Your task to perform on an android device: turn on priority inbox in the gmail app Image 0: 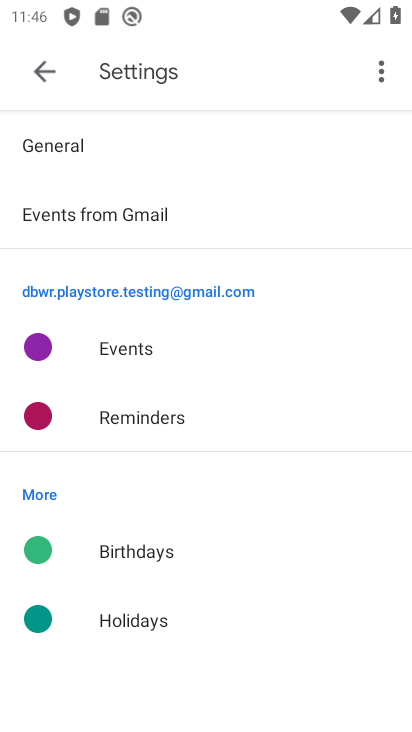
Step 0: press home button
Your task to perform on an android device: turn on priority inbox in the gmail app Image 1: 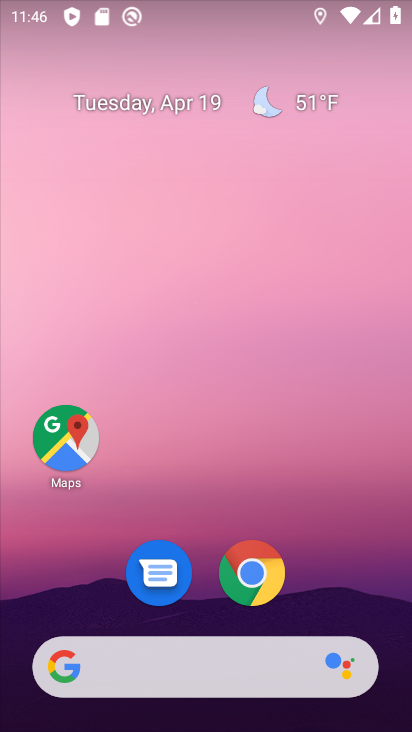
Step 1: drag from (311, 607) to (311, 201)
Your task to perform on an android device: turn on priority inbox in the gmail app Image 2: 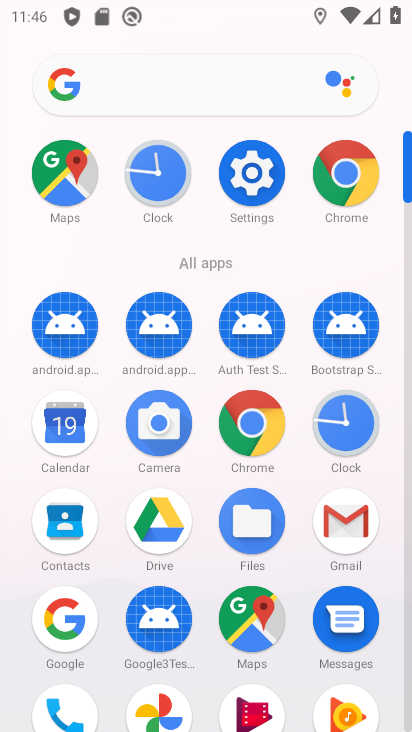
Step 2: click (348, 538)
Your task to perform on an android device: turn on priority inbox in the gmail app Image 3: 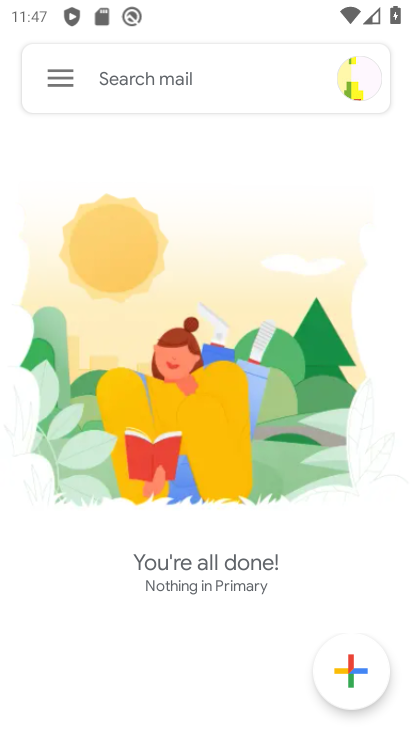
Step 3: click (61, 77)
Your task to perform on an android device: turn on priority inbox in the gmail app Image 4: 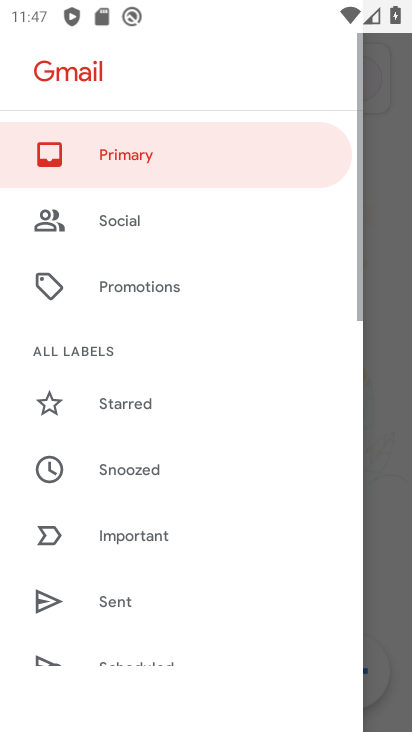
Step 4: drag from (168, 605) to (212, 217)
Your task to perform on an android device: turn on priority inbox in the gmail app Image 5: 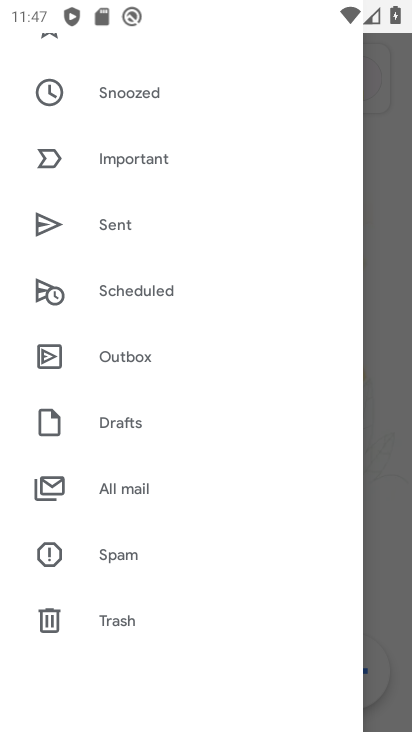
Step 5: drag from (190, 587) to (194, 324)
Your task to perform on an android device: turn on priority inbox in the gmail app Image 6: 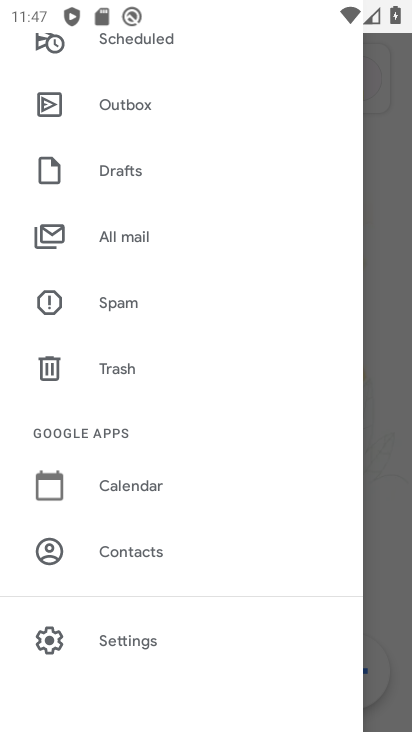
Step 6: click (154, 642)
Your task to perform on an android device: turn on priority inbox in the gmail app Image 7: 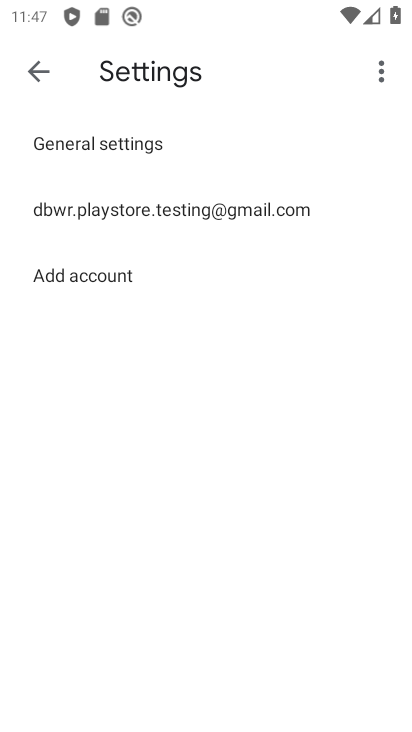
Step 7: click (106, 209)
Your task to perform on an android device: turn on priority inbox in the gmail app Image 8: 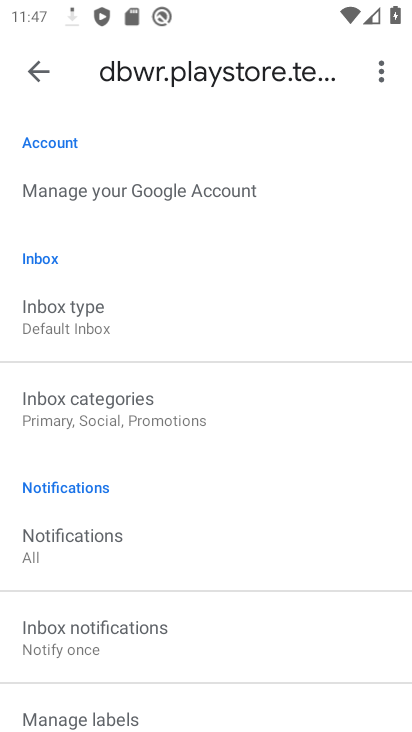
Step 8: click (94, 329)
Your task to perform on an android device: turn on priority inbox in the gmail app Image 9: 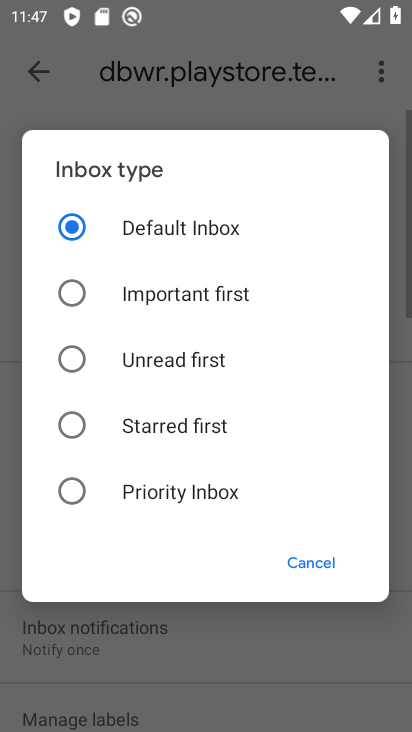
Step 9: click (169, 493)
Your task to perform on an android device: turn on priority inbox in the gmail app Image 10: 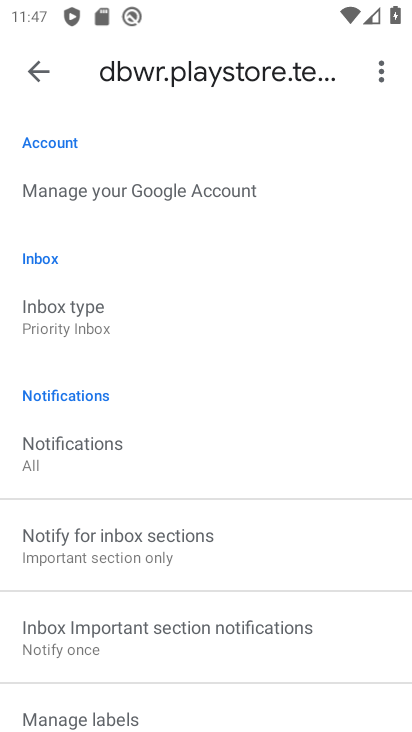
Step 10: task complete